Your task to perform on an android device: Search for the best selling TV on Best Buy. Image 0: 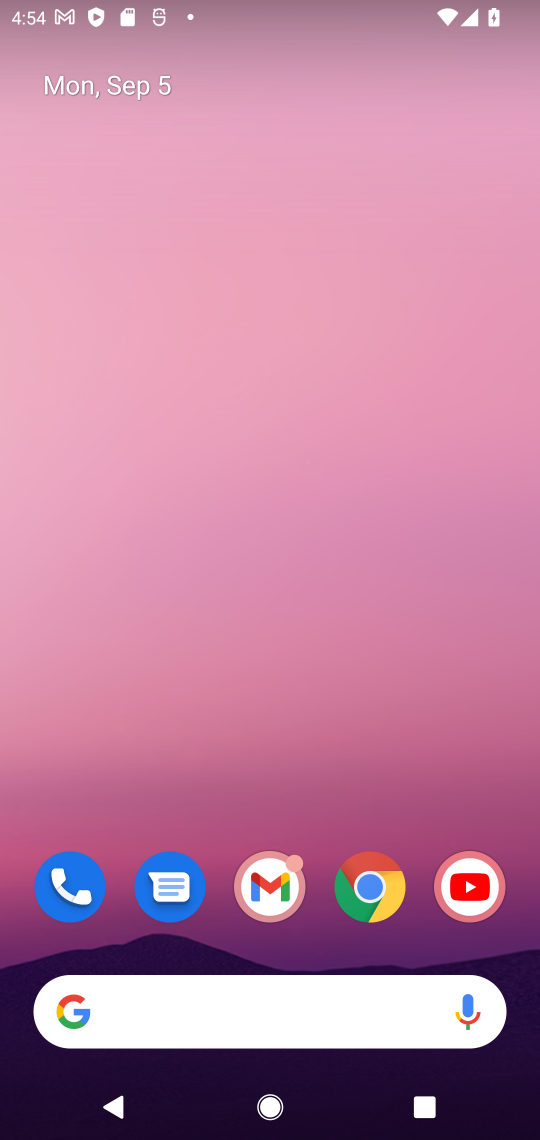
Step 0: drag from (332, 627) to (392, 253)
Your task to perform on an android device: Search for the best selling TV on Best Buy. Image 1: 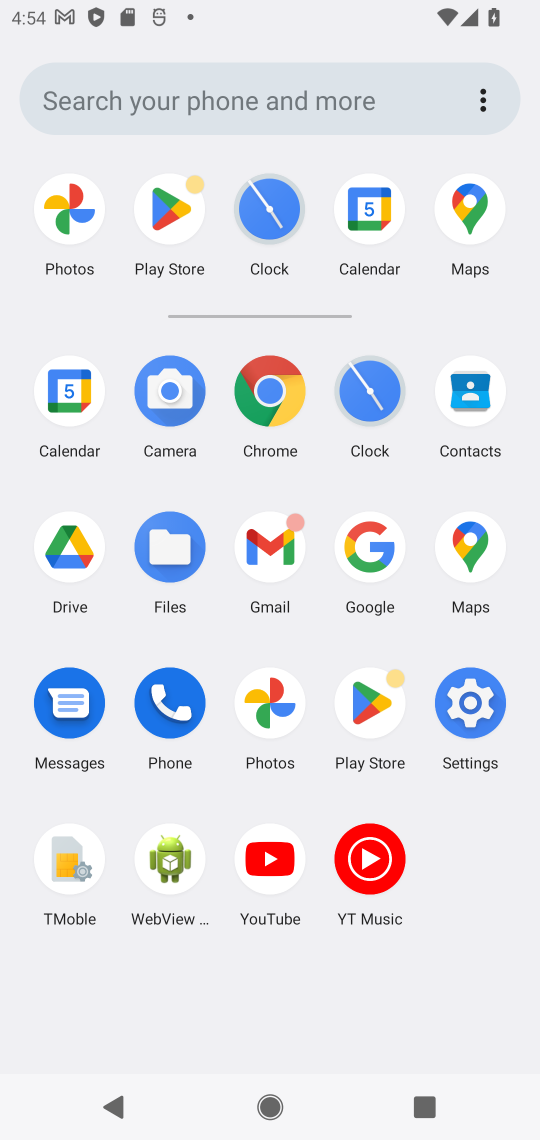
Step 1: click (265, 386)
Your task to perform on an android device: Search for the best selling TV on Best Buy. Image 2: 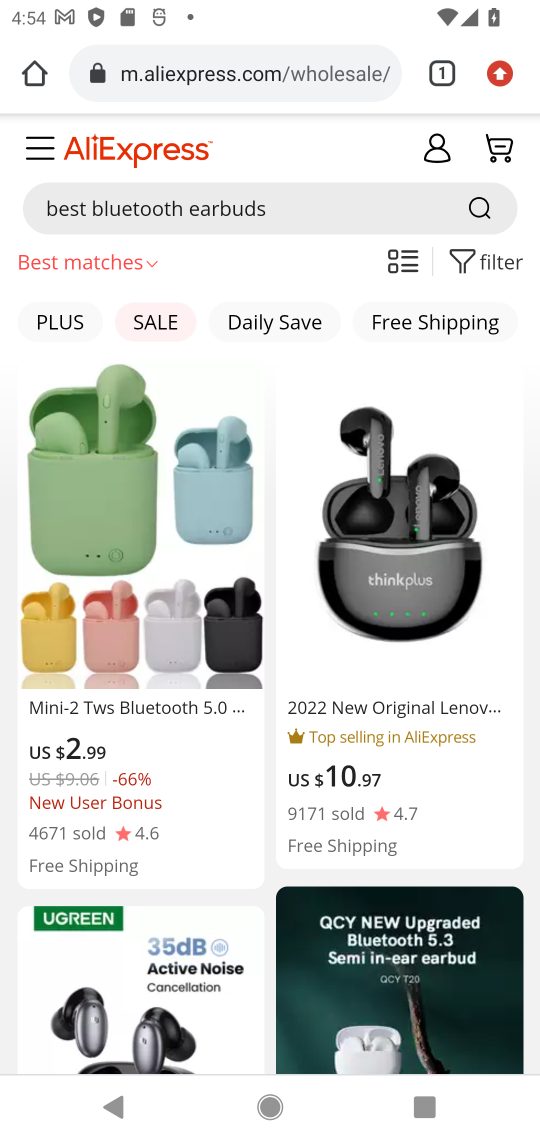
Step 2: click (332, 71)
Your task to perform on an android device: Search for the best selling TV on Best Buy. Image 3: 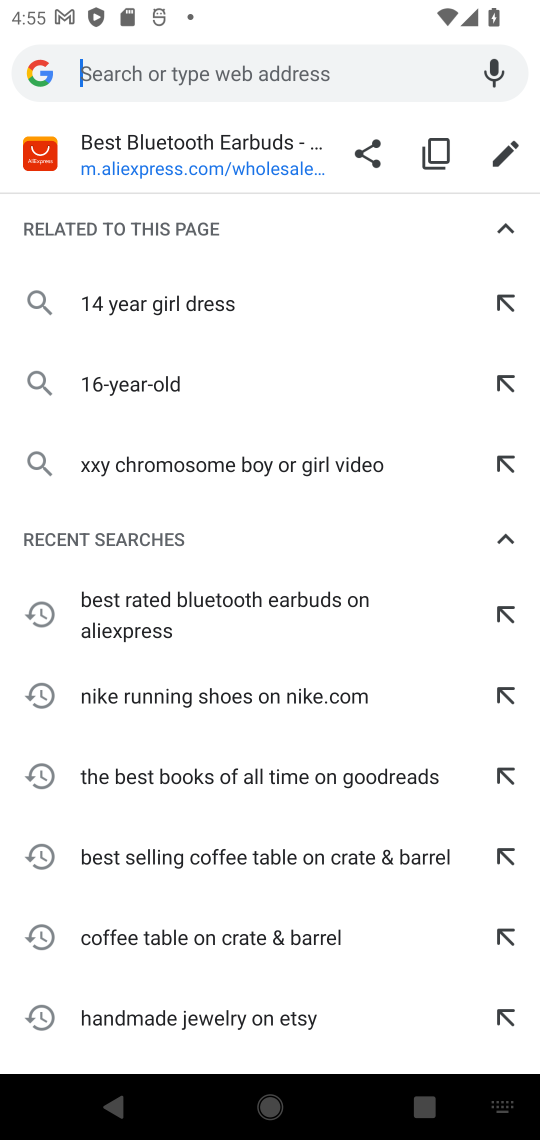
Step 3: type "best selling TV on Best Buy"
Your task to perform on an android device: Search for the best selling TV on Best Buy. Image 4: 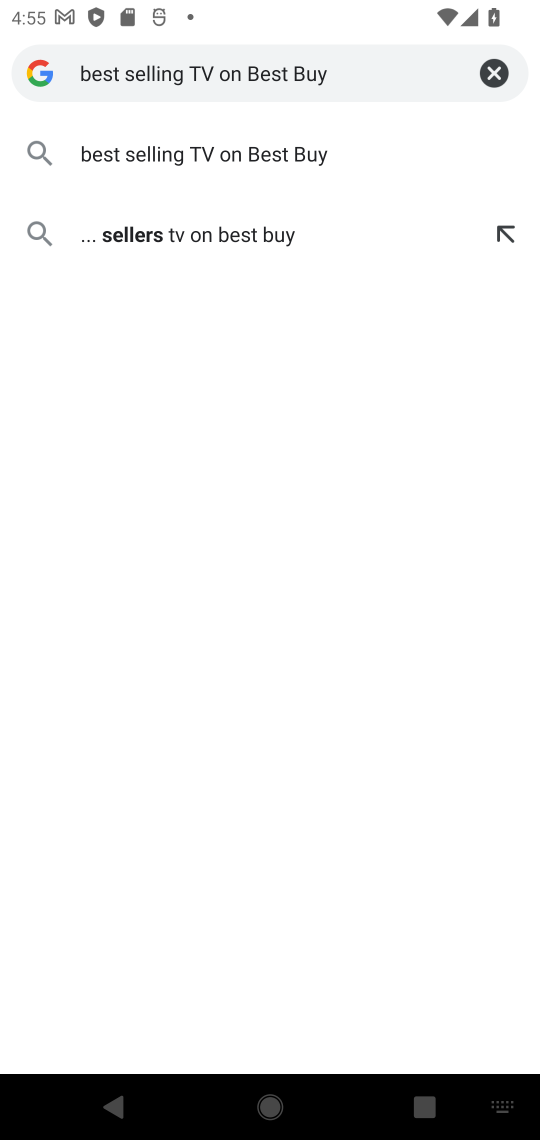
Step 4: press enter
Your task to perform on an android device: Search for the best selling TV on Best Buy. Image 5: 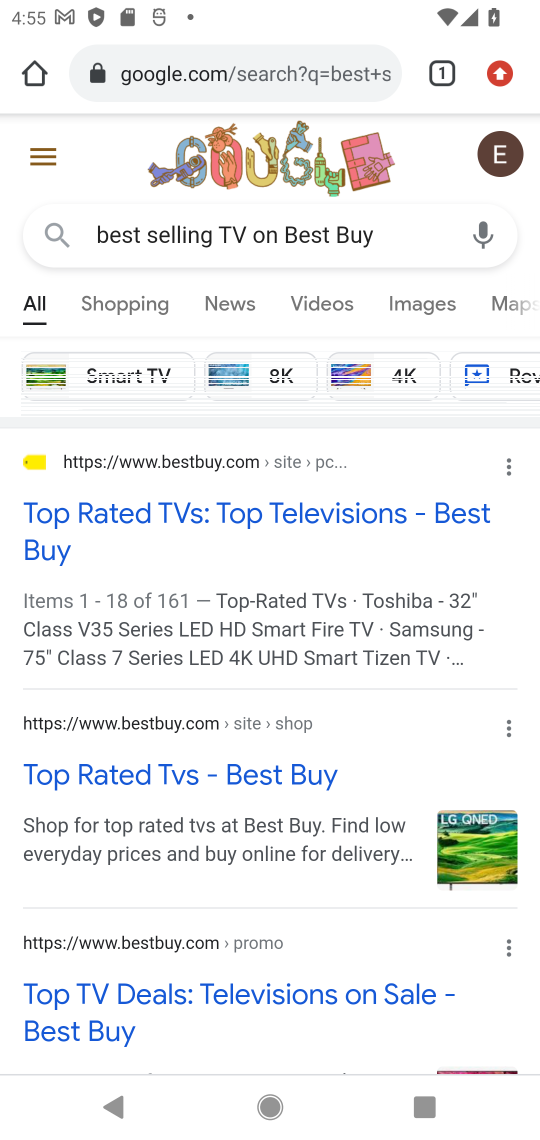
Step 5: click (263, 519)
Your task to perform on an android device: Search for the best selling TV on Best Buy. Image 6: 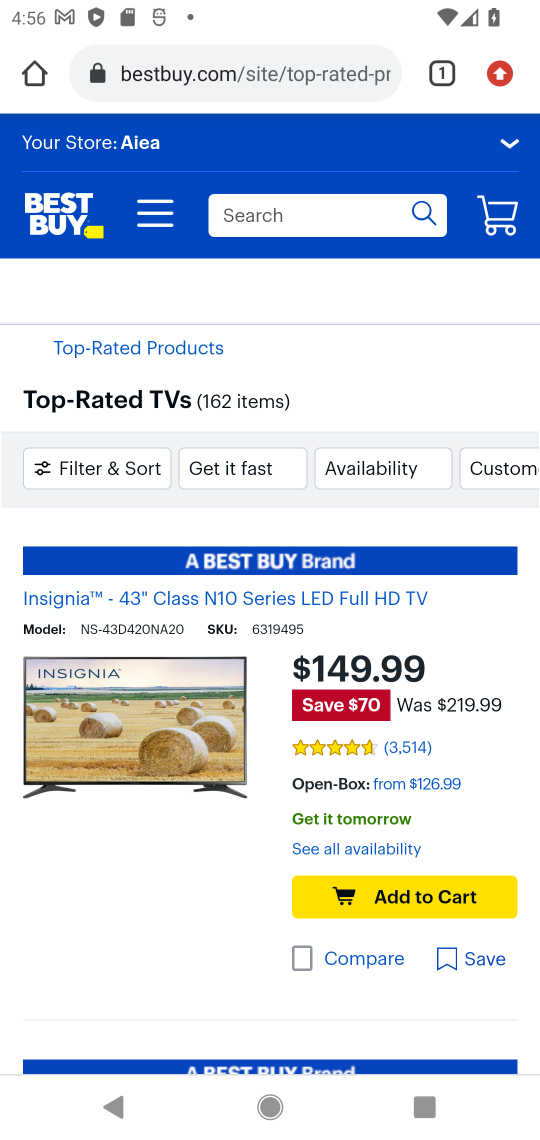
Step 6: task complete